Your task to perform on an android device: install app "DoorDash - Dasher" Image 0: 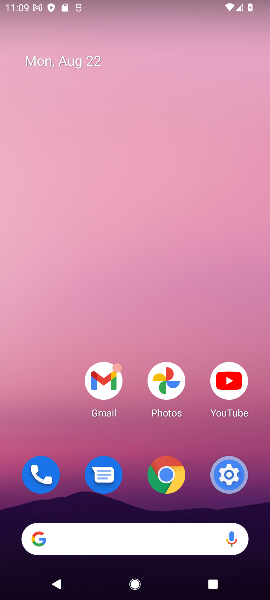
Step 0: drag from (116, 456) to (139, 0)
Your task to perform on an android device: install app "DoorDash - Dasher" Image 1: 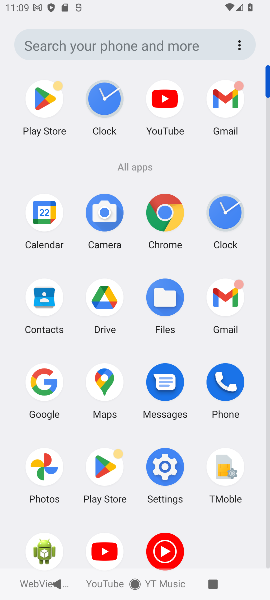
Step 1: click (40, 96)
Your task to perform on an android device: install app "DoorDash - Dasher" Image 2: 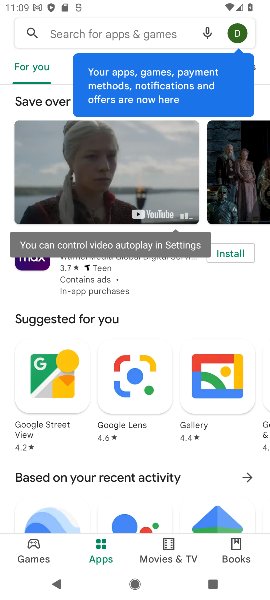
Step 2: click (74, 24)
Your task to perform on an android device: install app "DoorDash - Dasher" Image 3: 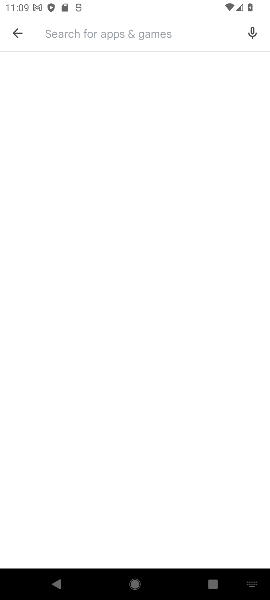
Step 3: type "DoorDash - Dasher"
Your task to perform on an android device: install app "DoorDash - Dasher" Image 4: 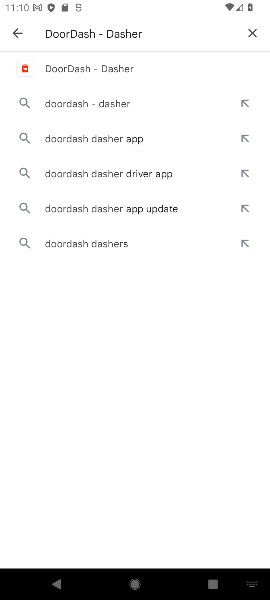
Step 4: click (71, 71)
Your task to perform on an android device: install app "DoorDash - Dasher" Image 5: 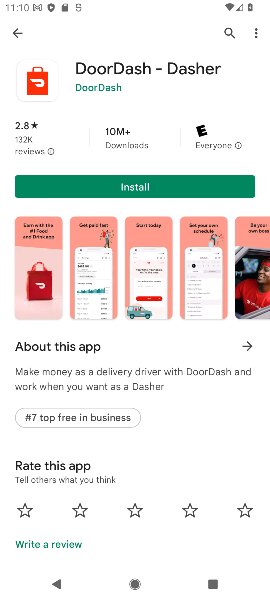
Step 5: click (118, 189)
Your task to perform on an android device: install app "DoorDash - Dasher" Image 6: 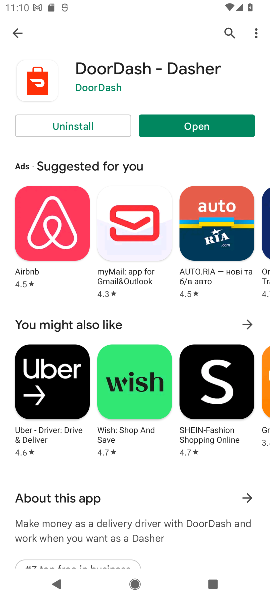
Step 6: task complete